Your task to perform on an android device: Open Google Maps and go to "Timeline" Image 0: 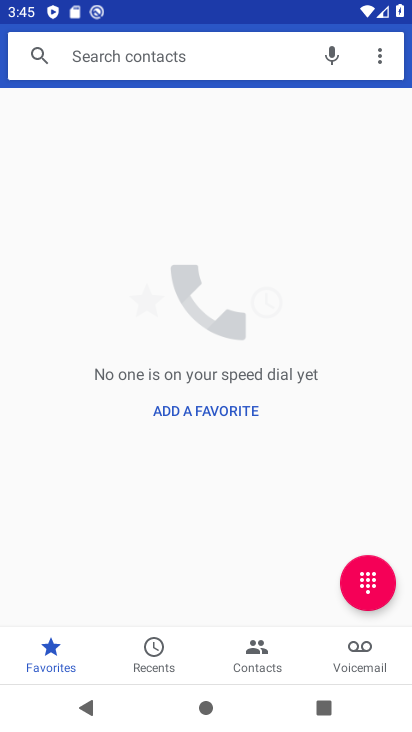
Step 0: press home button
Your task to perform on an android device: Open Google Maps and go to "Timeline" Image 1: 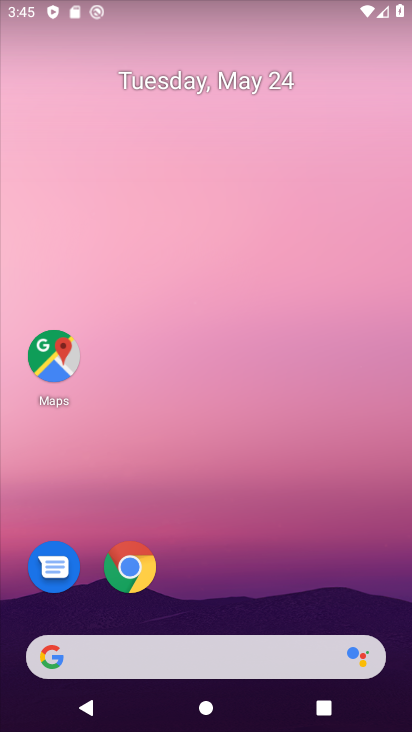
Step 1: click (64, 381)
Your task to perform on an android device: Open Google Maps and go to "Timeline" Image 2: 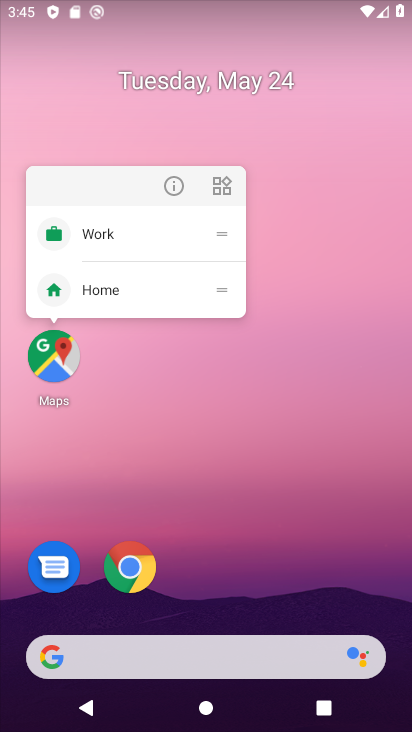
Step 2: click (66, 346)
Your task to perform on an android device: Open Google Maps and go to "Timeline" Image 3: 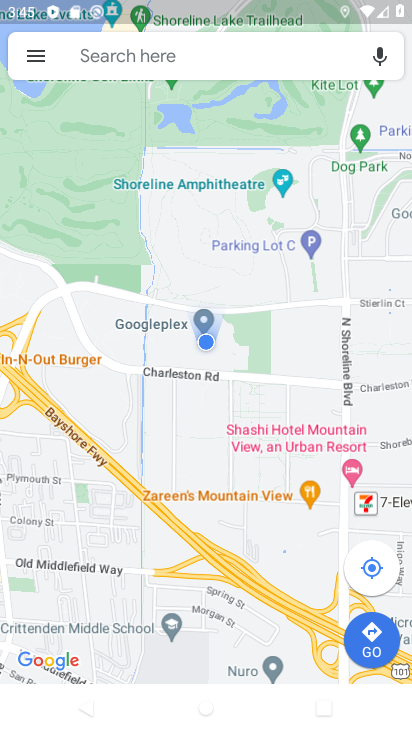
Step 3: click (36, 56)
Your task to perform on an android device: Open Google Maps and go to "Timeline" Image 4: 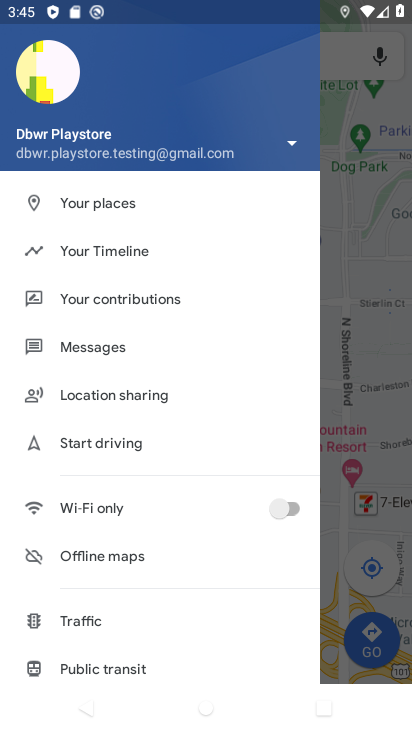
Step 4: click (83, 266)
Your task to perform on an android device: Open Google Maps and go to "Timeline" Image 5: 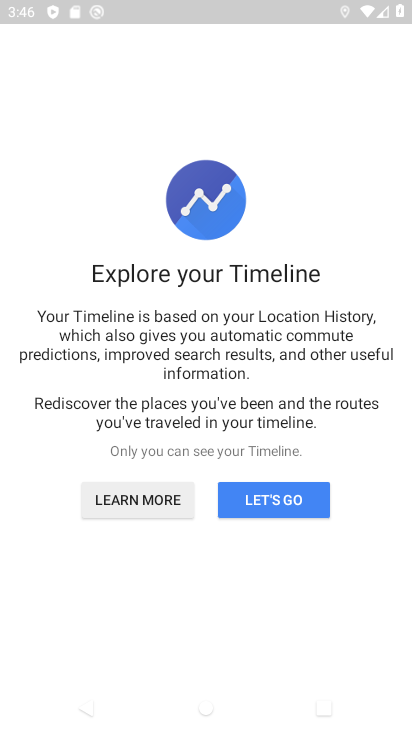
Step 5: click (296, 496)
Your task to perform on an android device: Open Google Maps and go to "Timeline" Image 6: 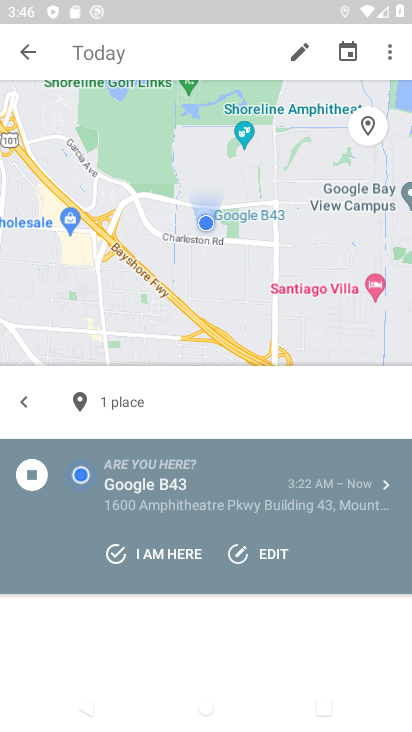
Step 6: task complete